Your task to perform on an android device: open app "Mercado Libre" Image 0: 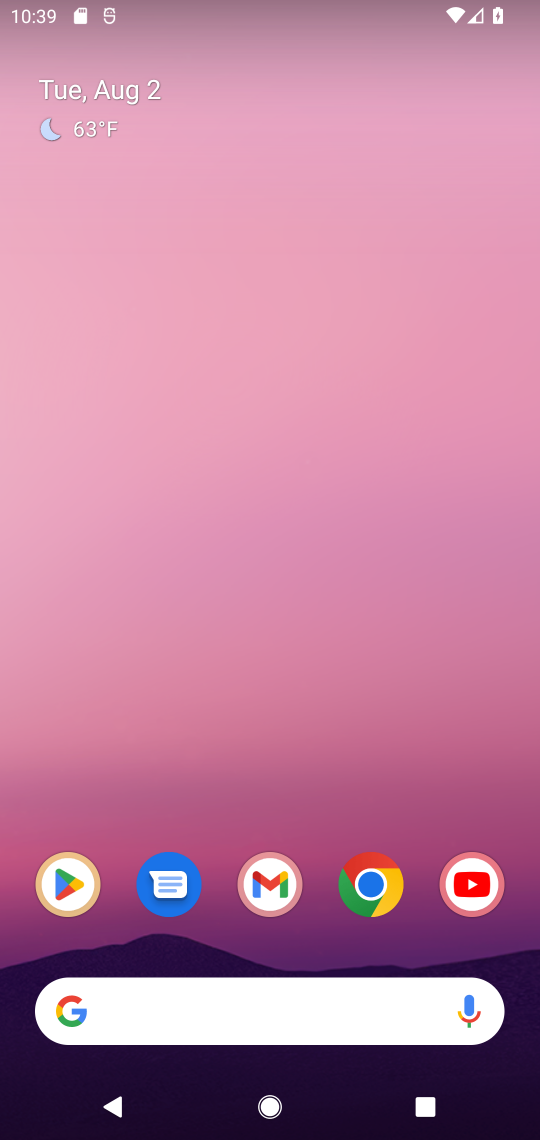
Step 0: click (55, 903)
Your task to perform on an android device: open app "Mercado Libre" Image 1: 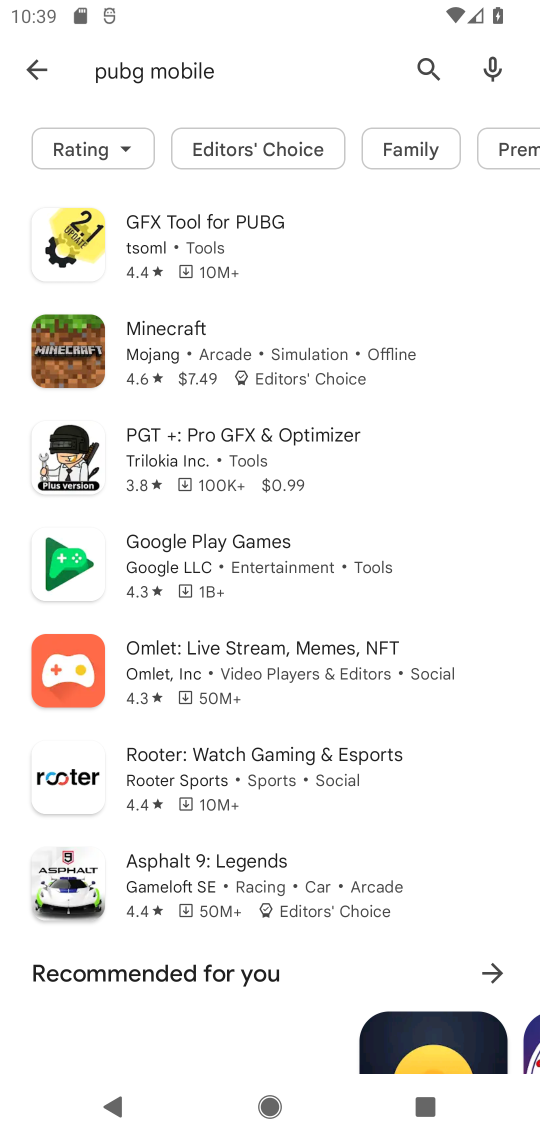
Step 1: click (255, 63)
Your task to perform on an android device: open app "Mercado Libre" Image 2: 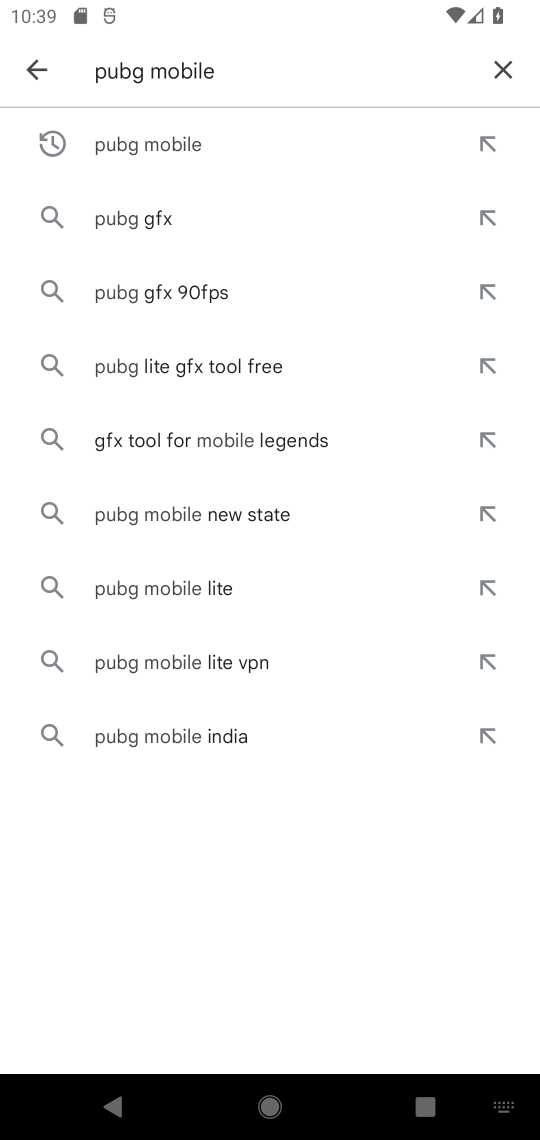
Step 2: click (511, 70)
Your task to perform on an android device: open app "Mercado Libre" Image 3: 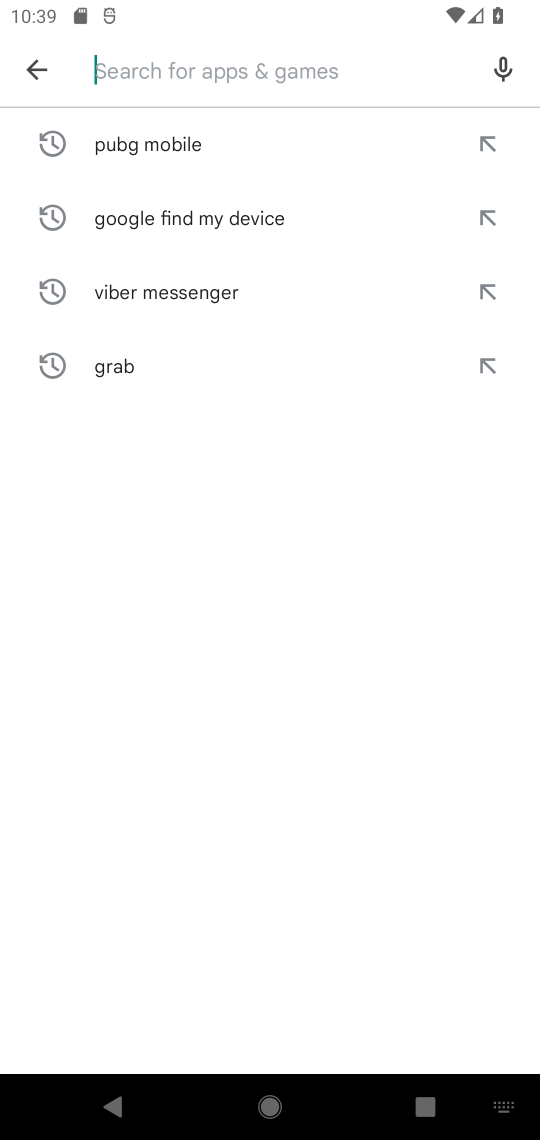
Step 3: type "mercado Libre"
Your task to perform on an android device: open app "Mercado Libre" Image 4: 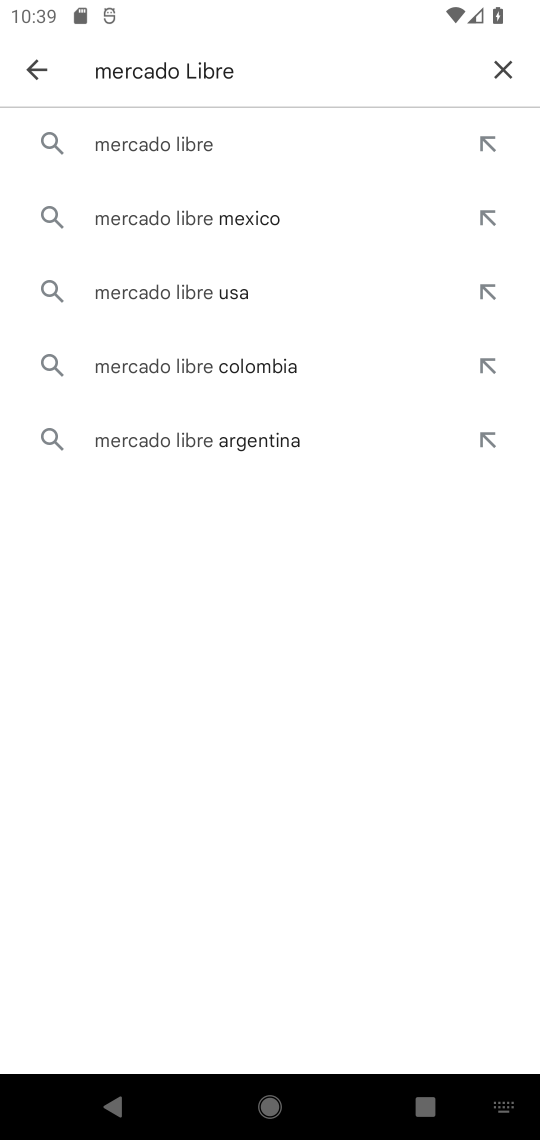
Step 4: click (191, 147)
Your task to perform on an android device: open app "Mercado Libre" Image 5: 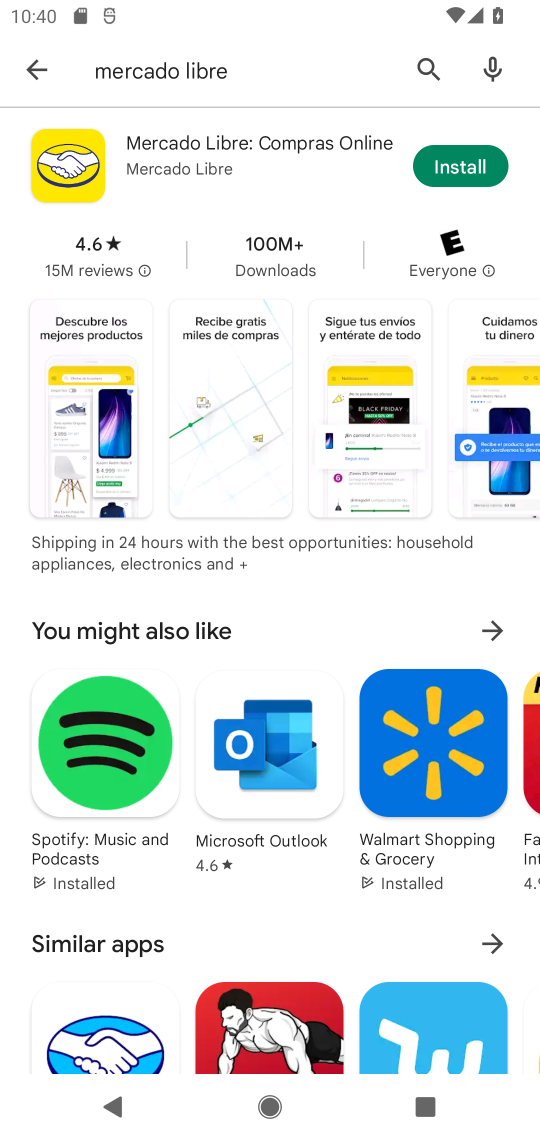
Step 5: task complete